Your task to perform on an android device: Search for vegetarian restaurants on Maps Image 0: 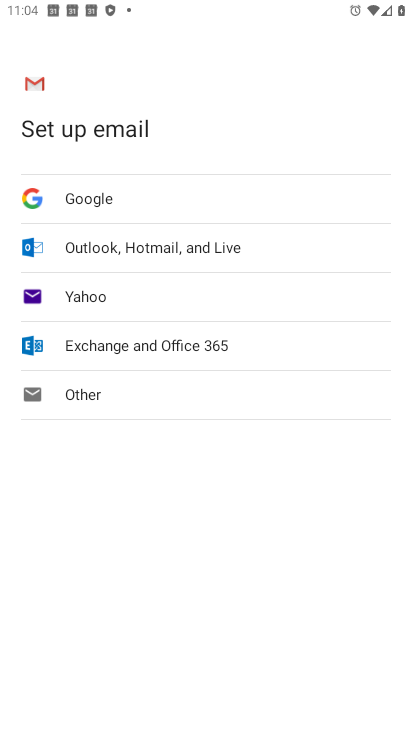
Step 0: press home button
Your task to perform on an android device: Search for vegetarian restaurants on Maps Image 1: 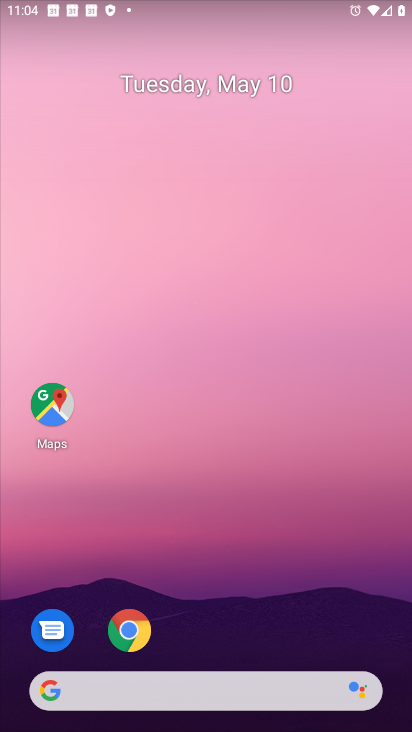
Step 1: click (46, 409)
Your task to perform on an android device: Search for vegetarian restaurants on Maps Image 2: 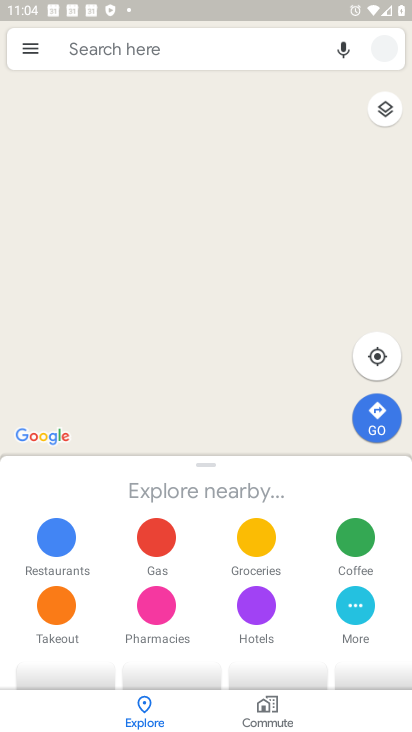
Step 2: click (262, 55)
Your task to perform on an android device: Search for vegetarian restaurants on Maps Image 3: 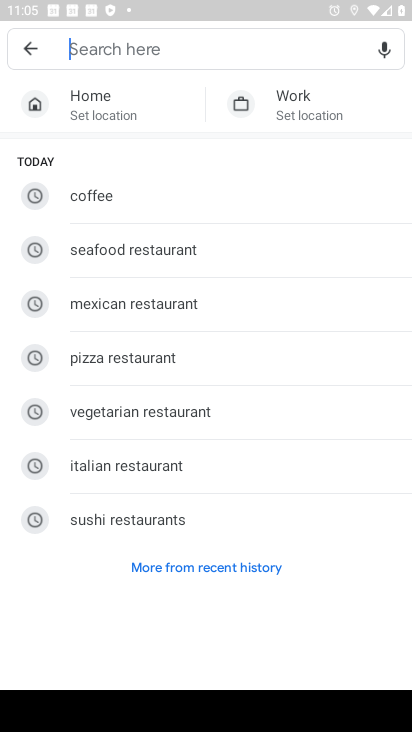
Step 3: click (147, 410)
Your task to perform on an android device: Search for vegetarian restaurants on Maps Image 4: 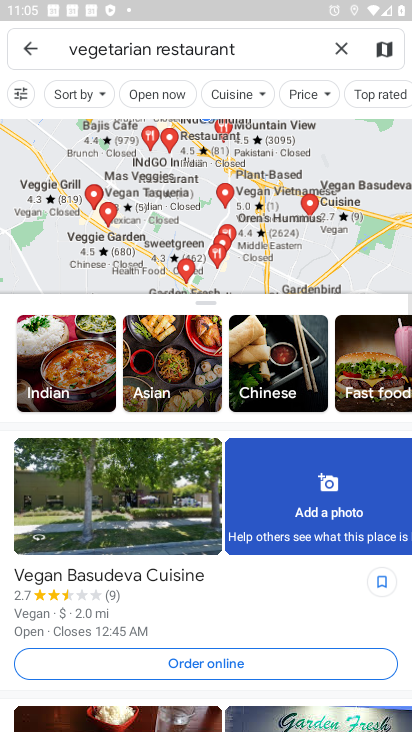
Step 4: task complete